Your task to perform on an android device: turn off picture-in-picture Image 0: 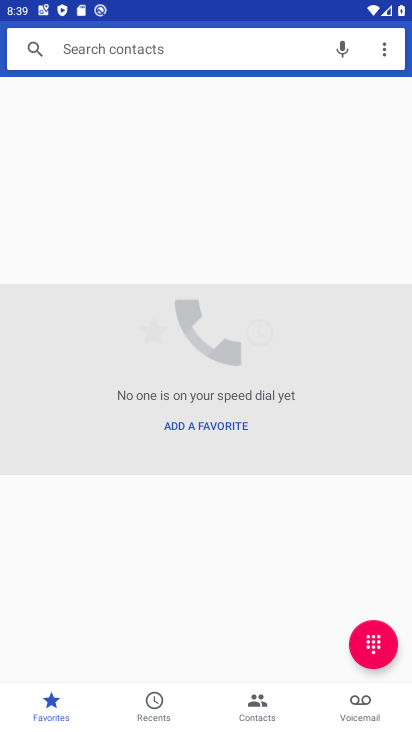
Step 0: press home button
Your task to perform on an android device: turn off picture-in-picture Image 1: 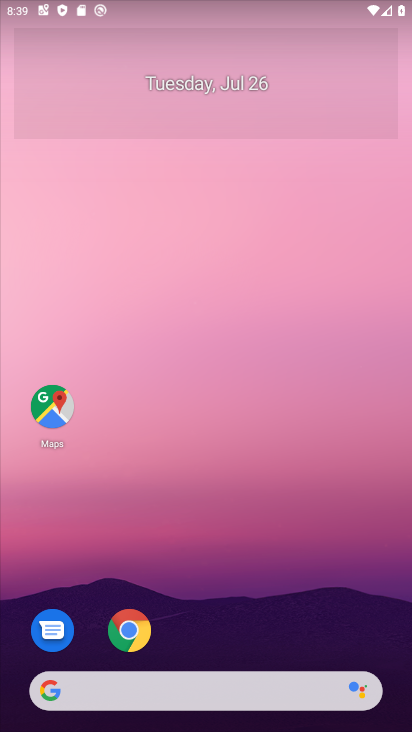
Step 1: drag from (293, 626) to (301, 101)
Your task to perform on an android device: turn off picture-in-picture Image 2: 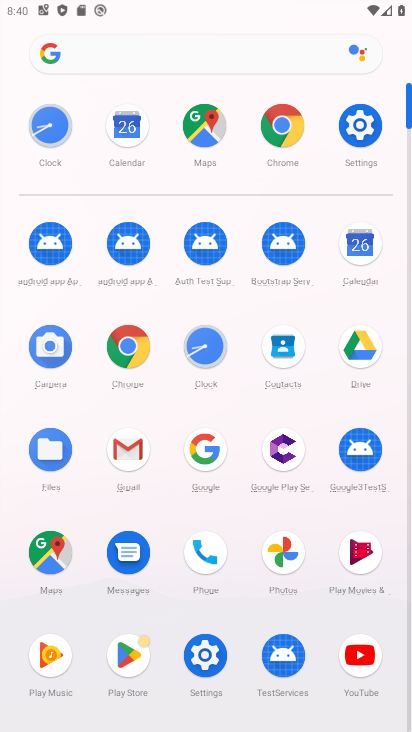
Step 2: click (347, 144)
Your task to perform on an android device: turn off picture-in-picture Image 3: 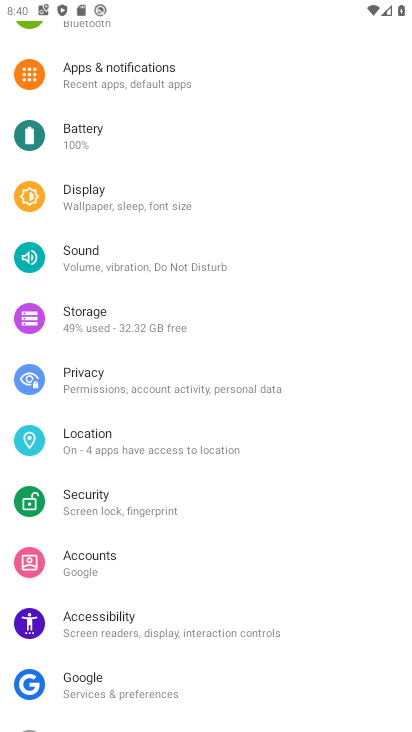
Step 3: click (164, 89)
Your task to perform on an android device: turn off picture-in-picture Image 4: 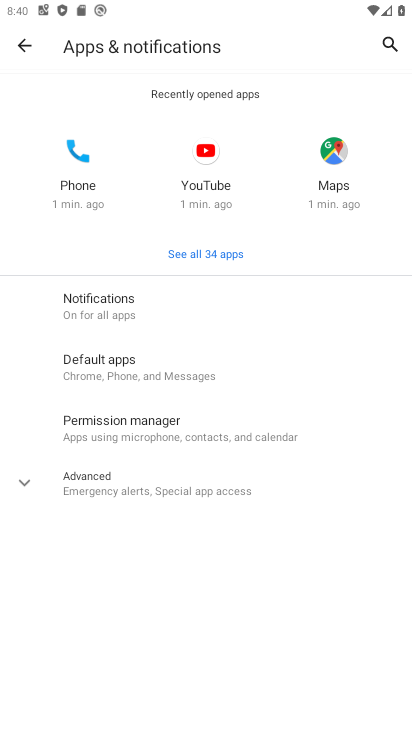
Step 4: task complete